Your task to perform on an android device: Open privacy settings Image 0: 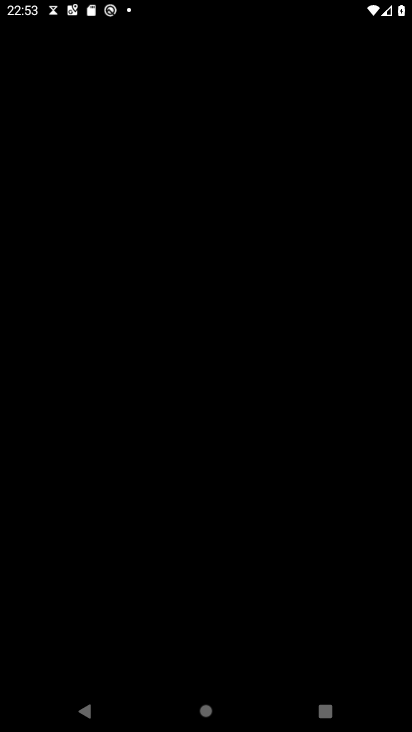
Step 0: press home button
Your task to perform on an android device: Open privacy settings Image 1: 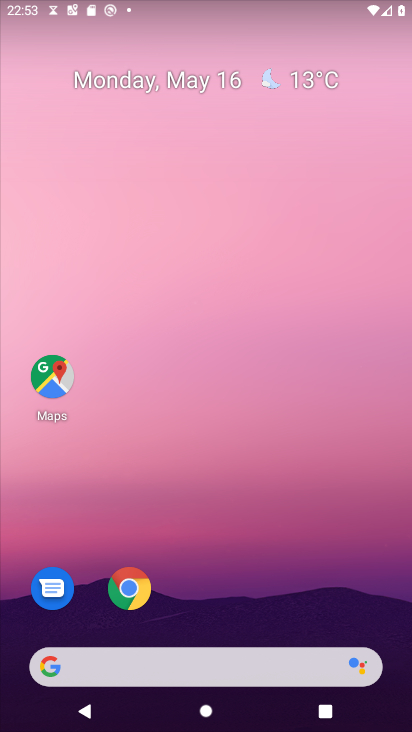
Step 1: drag from (222, 632) to (273, 1)
Your task to perform on an android device: Open privacy settings Image 2: 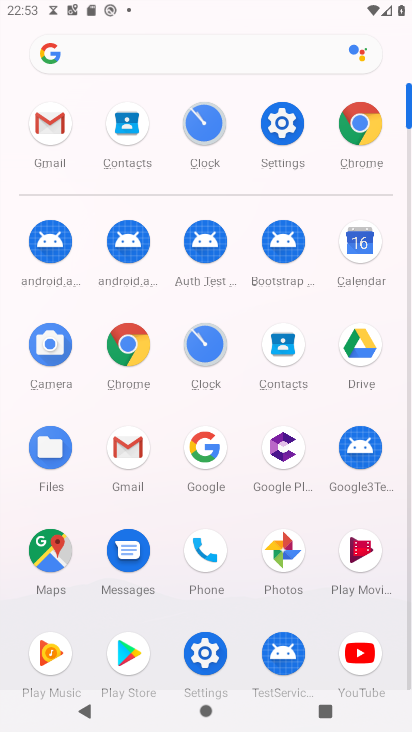
Step 2: click (280, 117)
Your task to perform on an android device: Open privacy settings Image 3: 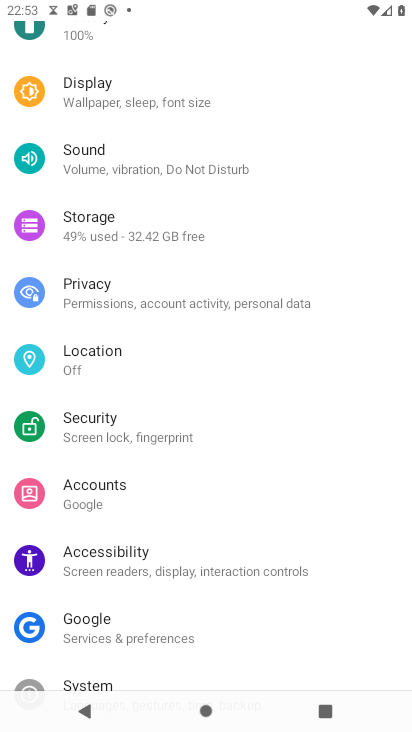
Step 3: click (128, 288)
Your task to perform on an android device: Open privacy settings Image 4: 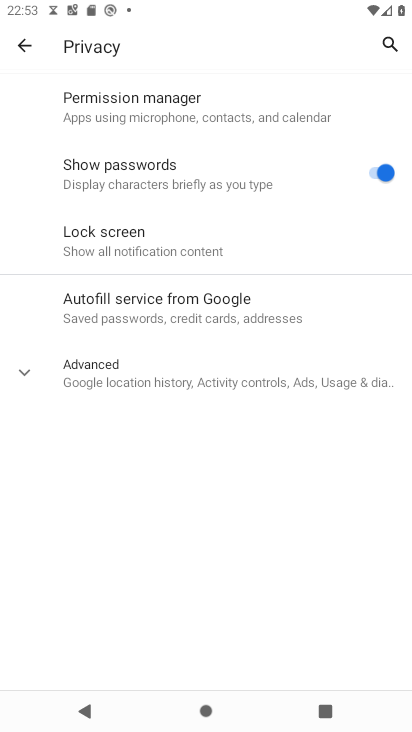
Step 4: click (30, 369)
Your task to perform on an android device: Open privacy settings Image 5: 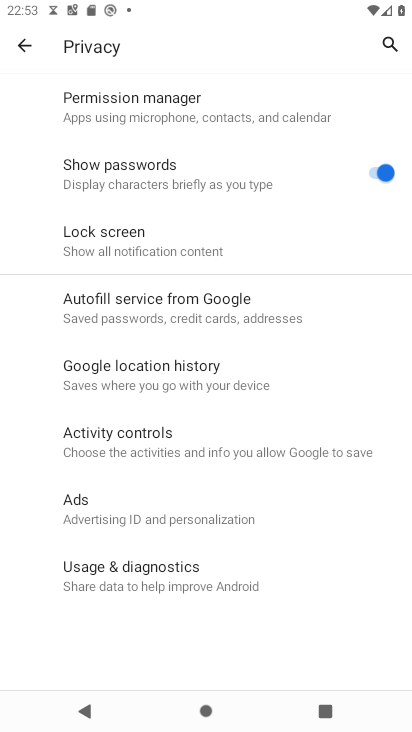
Step 5: task complete